Your task to perform on an android device: What's the weather going to be tomorrow? Image 0: 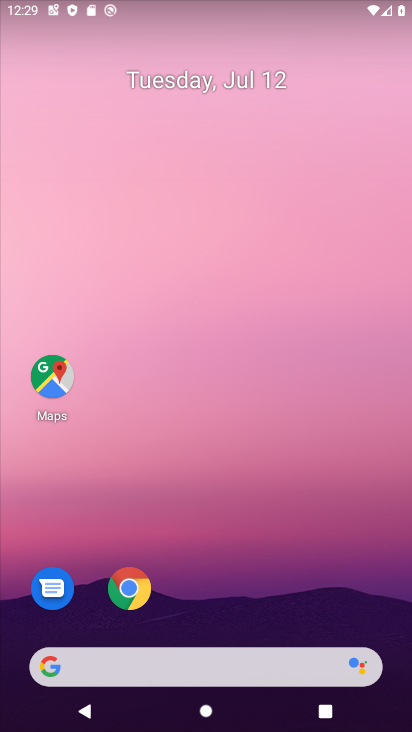
Step 0: drag from (149, 648) to (145, 247)
Your task to perform on an android device: What's the weather going to be tomorrow? Image 1: 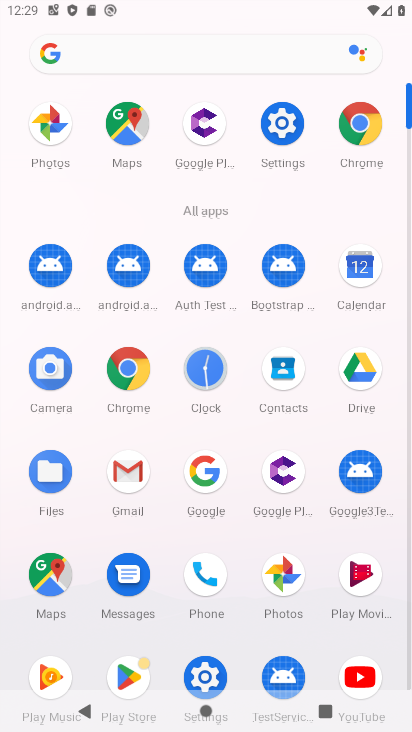
Step 1: click (202, 480)
Your task to perform on an android device: What's the weather going to be tomorrow? Image 2: 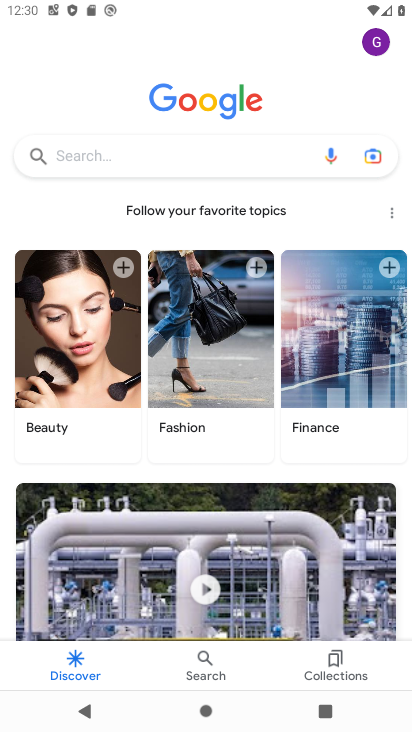
Step 2: click (84, 160)
Your task to perform on an android device: What's the weather going to be tomorrow? Image 3: 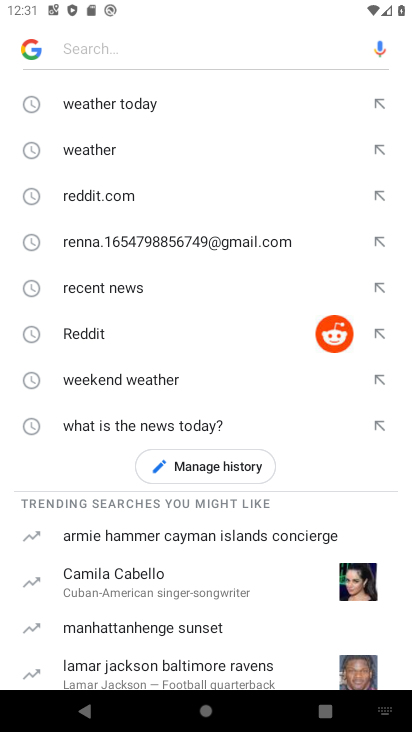
Step 3: click (105, 97)
Your task to perform on an android device: What's the weather going to be tomorrow? Image 4: 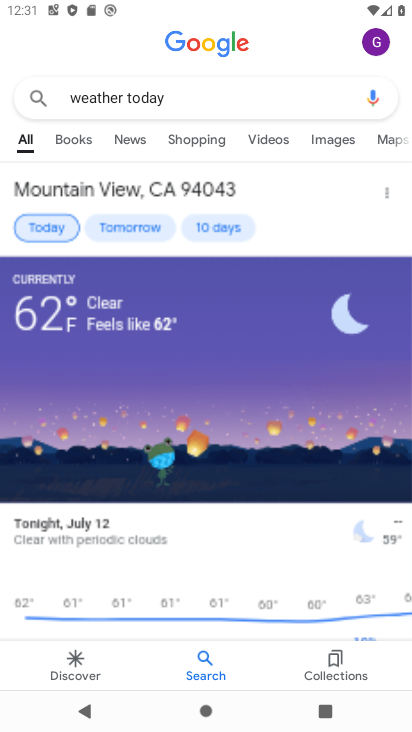
Step 4: click (138, 232)
Your task to perform on an android device: What's the weather going to be tomorrow? Image 5: 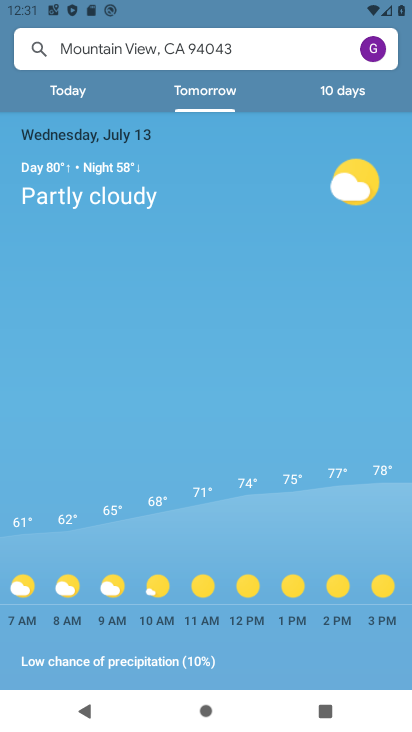
Step 5: task complete